Your task to perform on an android device: What's the weather today? Image 0: 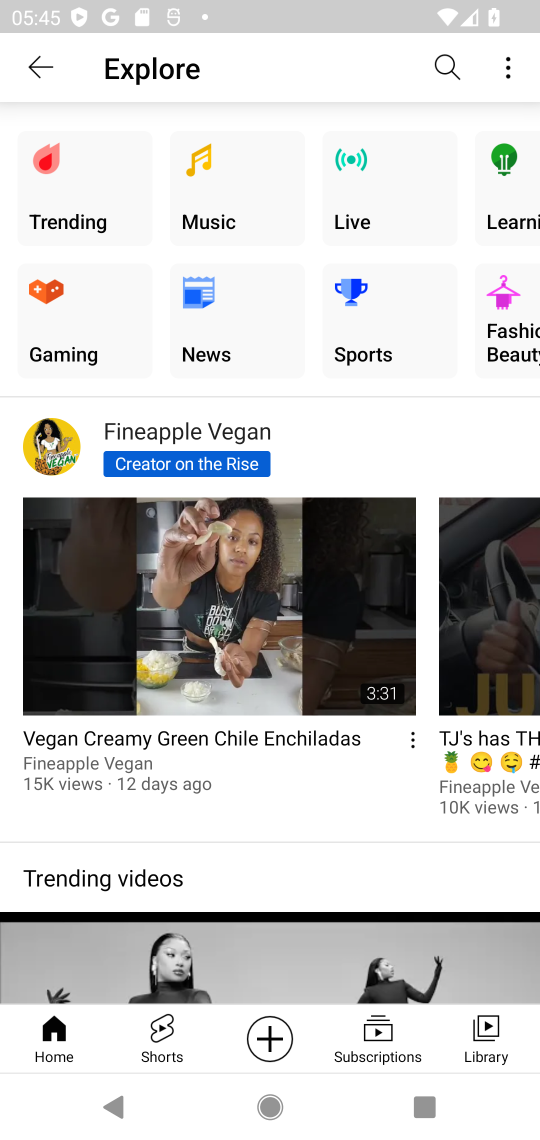
Step 0: press home button
Your task to perform on an android device: What's the weather today? Image 1: 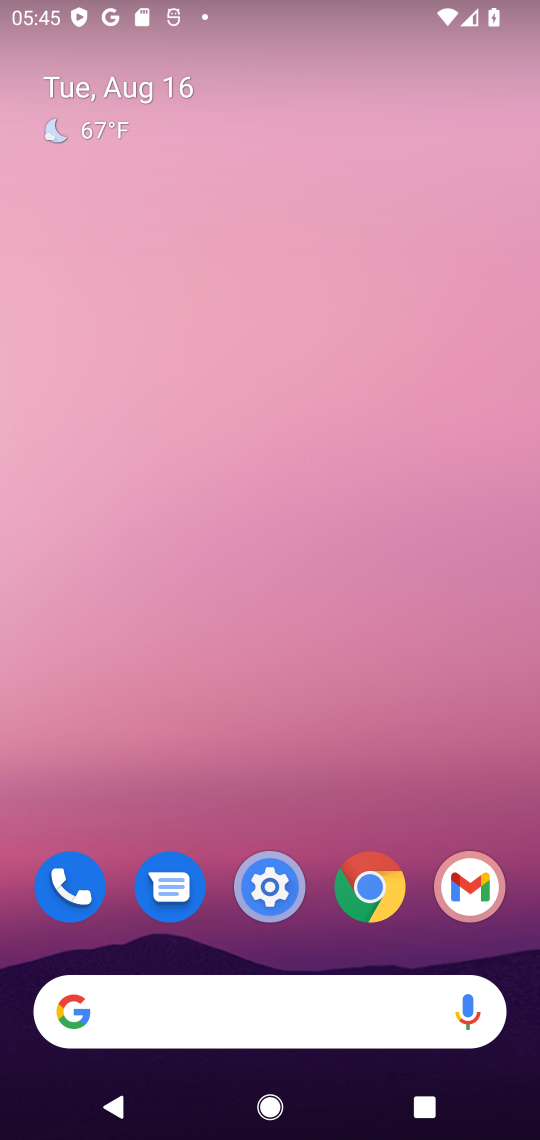
Step 1: click (101, 135)
Your task to perform on an android device: What's the weather today? Image 2: 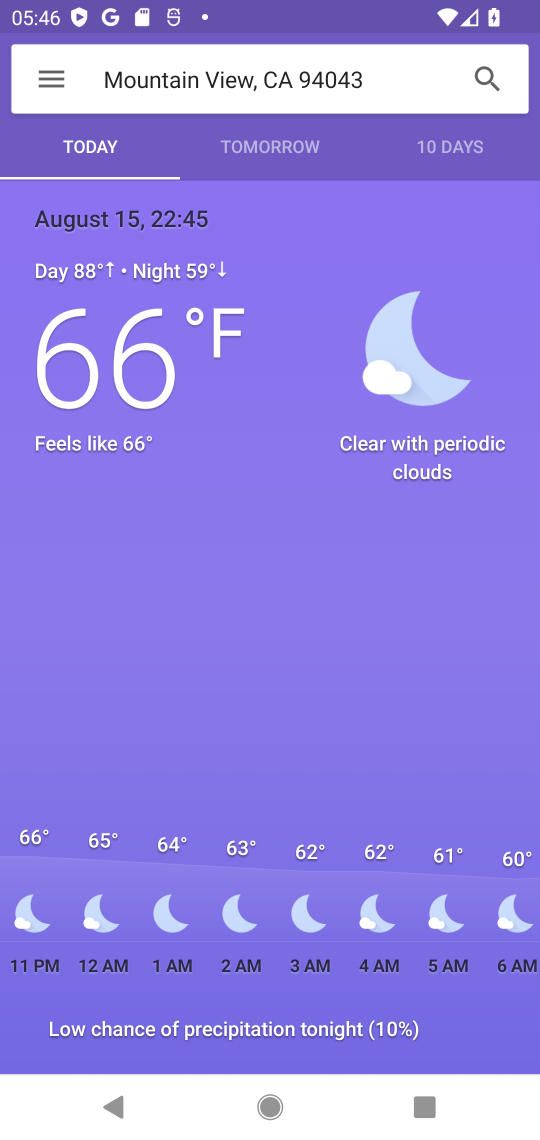
Step 2: task complete